Your task to perform on an android device: change notification settings in the gmail app Image 0: 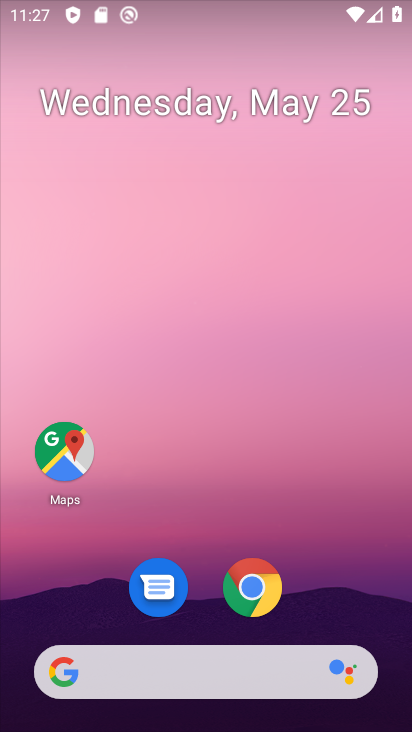
Step 0: press home button
Your task to perform on an android device: change notification settings in the gmail app Image 1: 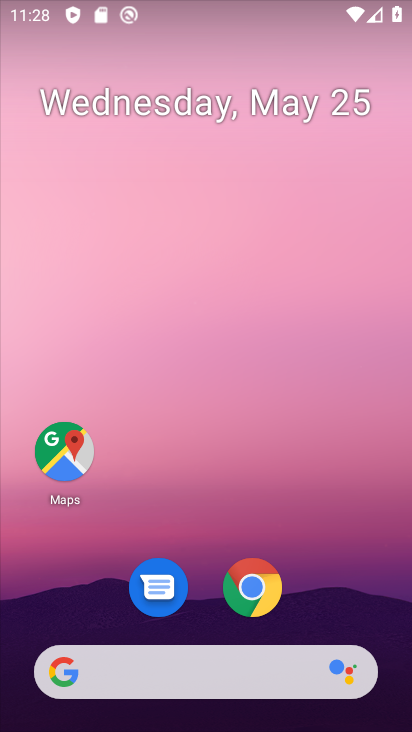
Step 1: drag from (265, 704) to (342, 194)
Your task to perform on an android device: change notification settings in the gmail app Image 2: 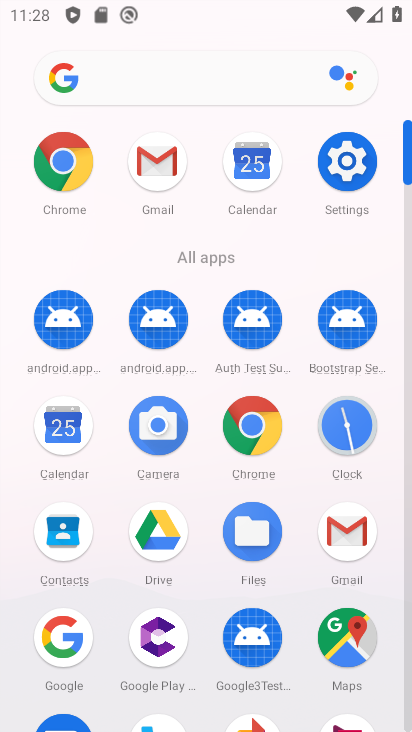
Step 2: click (174, 171)
Your task to perform on an android device: change notification settings in the gmail app Image 3: 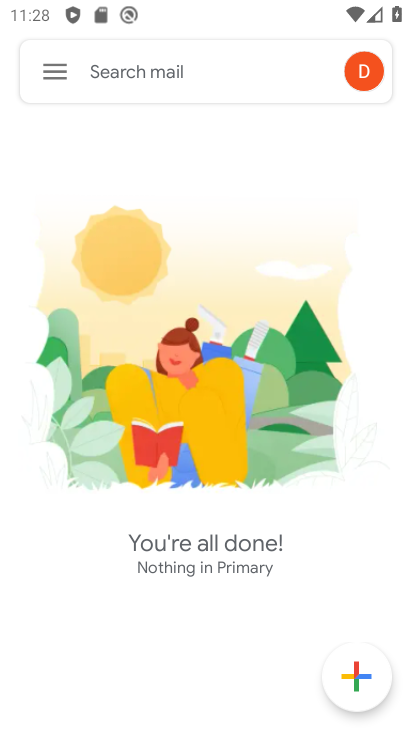
Step 3: click (54, 72)
Your task to perform on an android device: change notification settings in the gmail app Image 4: 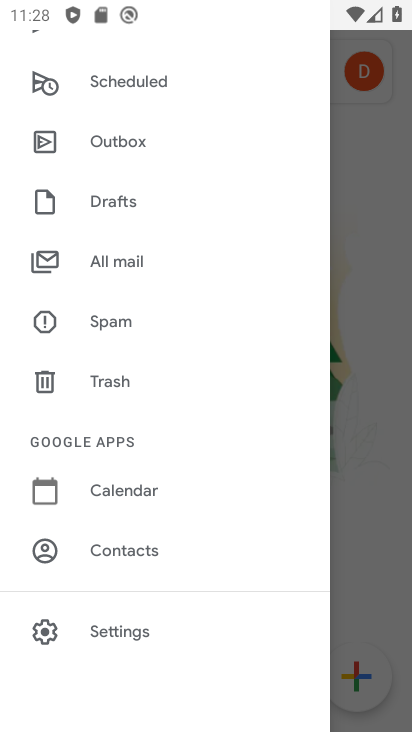
Step 4: click (132, 631)
Your task to perform on an android device: change notification settings in the gmail app Image 5: 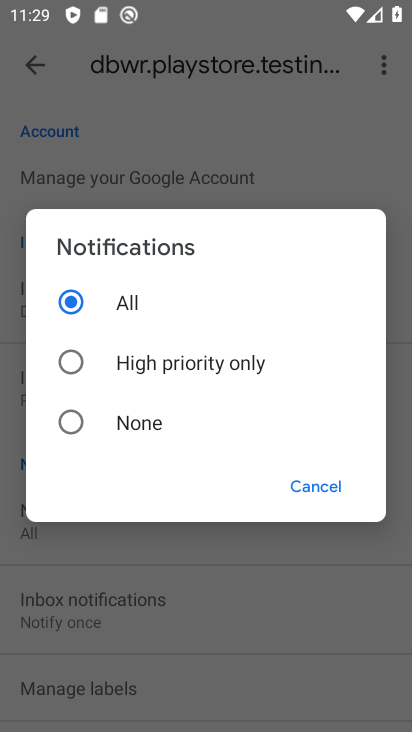
Step 5: task complete